Your task to perform on an android device: Open internet settings Image 0: 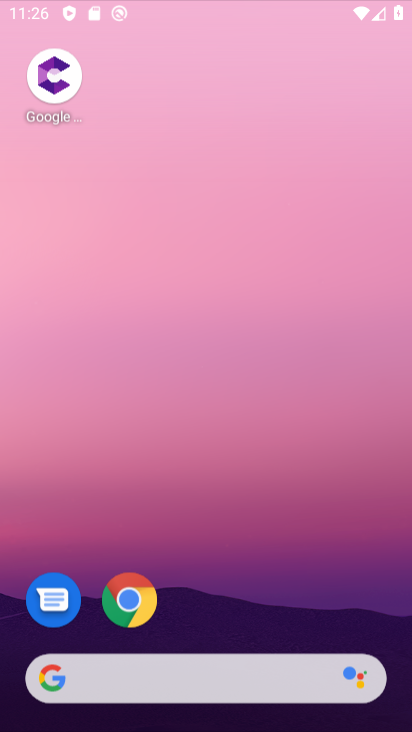
Step 0: press home button
Your task to perform on an android device: Open internet settings Image 1: 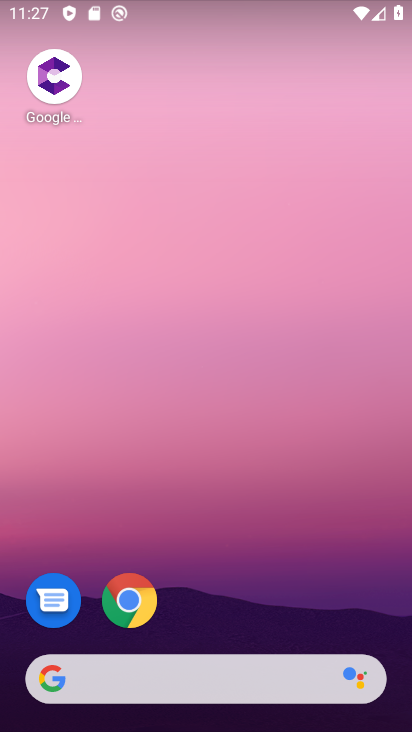
Step 1: drag from (284, 589) to (231, 200)
Your task to perform on an android device: Open internet settings Image 2: 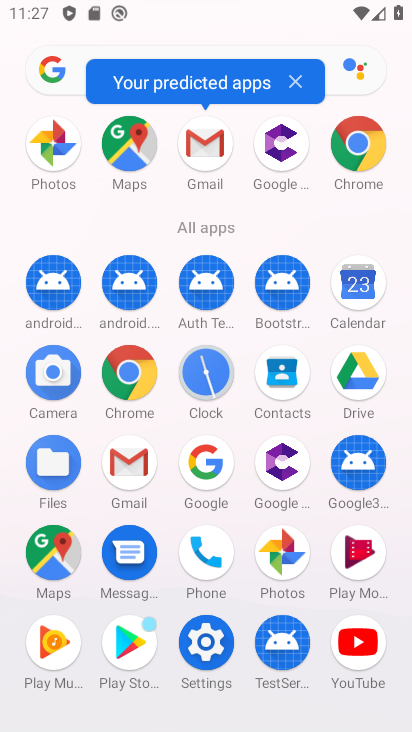
Step 2: click (202, 629)
Your task to perform on an android device: Open internet settings Image 3: 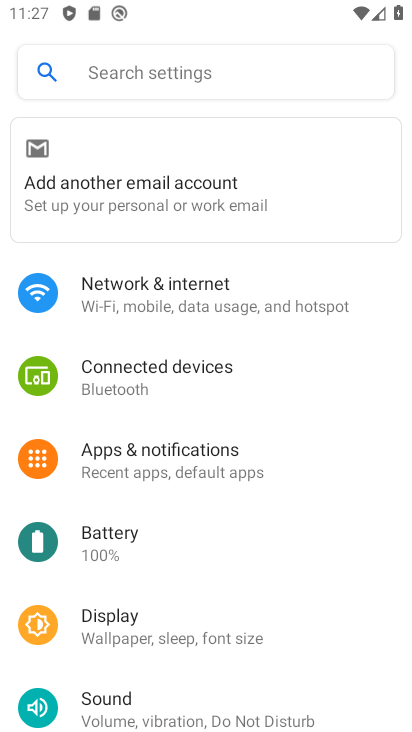
Step 3: click (181, 305)
Your task to perform on an android device: Open internet settings Image 4: 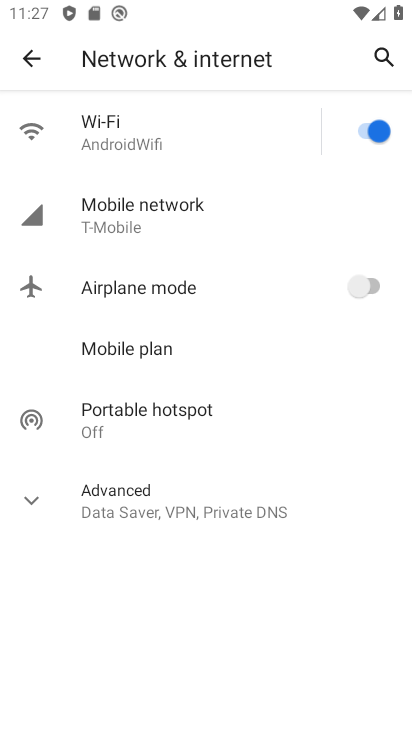
Step 4: click (203, 506)
Your task to perform on an android device: Open internet settings Image 5: 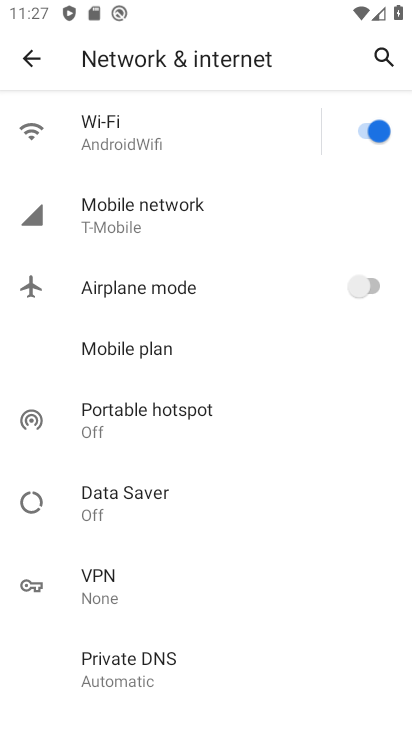
Step 5: task complete